Your task to perform on an android device: snooze an email in the gmail app Image 0: 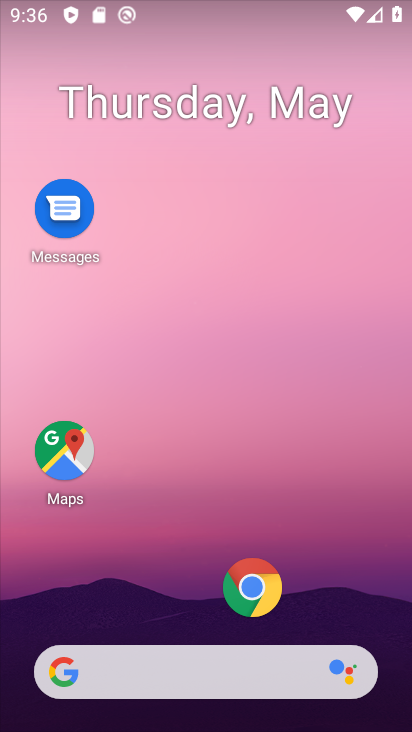
Step 0: drag from (233, 638) to (219, 38)
Your task to perform on an android device: snooze an email in the gmail app Image 1: 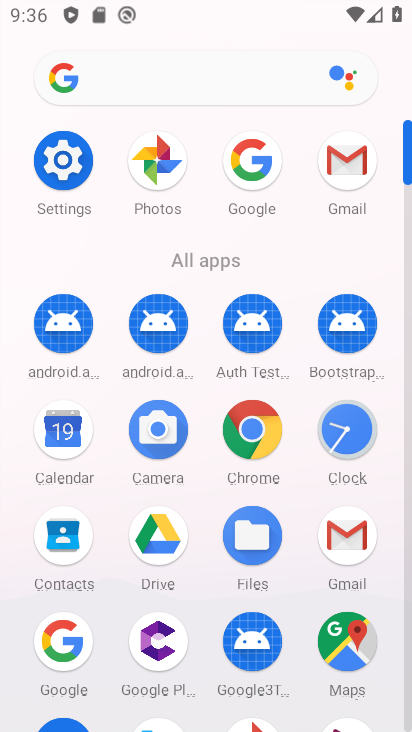
Step 1: click (360, 542)
Your task to perform on an android device: snooze an email in the gmail app Image 2: 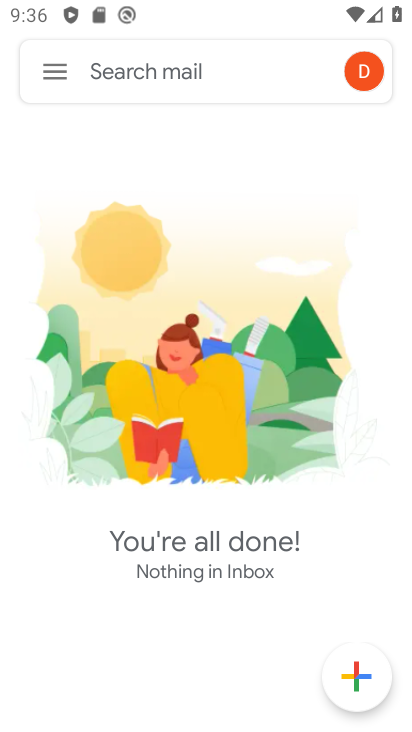
Step 2: click (57, 69)
Your task to perform on an android device: snooze an email in the gmail app Image 3: 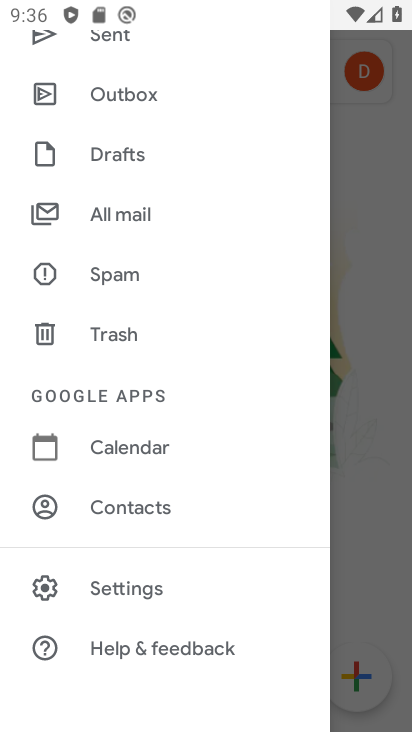
Step 3: drag from (130, 207) to (114, 549)
Your task to perform on an android device: snooze an email in the gmail app Image 4: 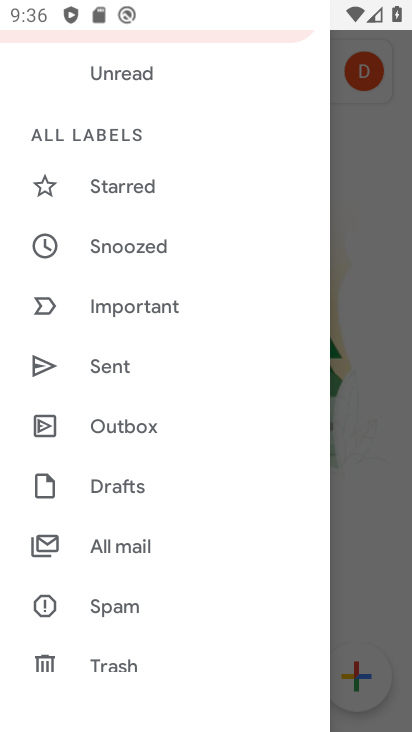
Step 4: click (104, 545)
Your task to perform on an android device: snooze an email in the gmail app Image 5: 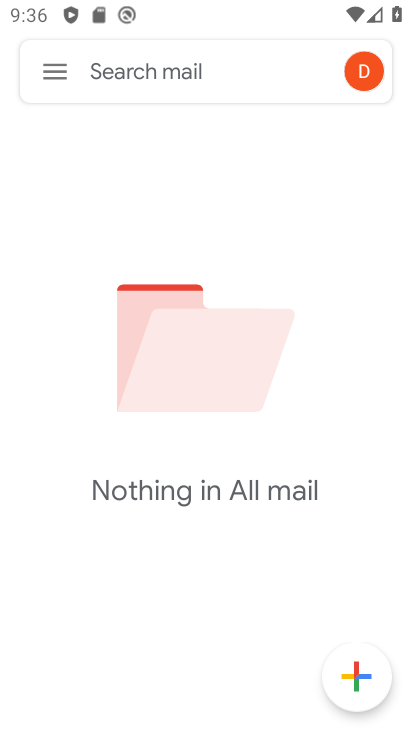
Step 5: task complete